Your task to perform on an android device: Search for seafood restaurants on Google Maps Image 0: 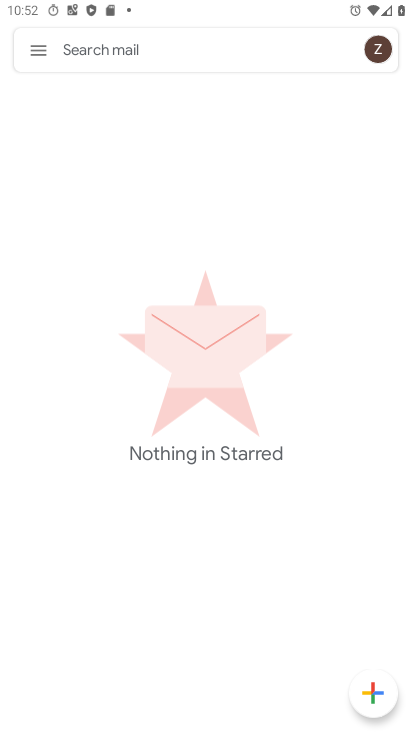
Step 0: press home button
Your task to perform on an android device: Search for seafood restaurants on Google Maps Image 1: 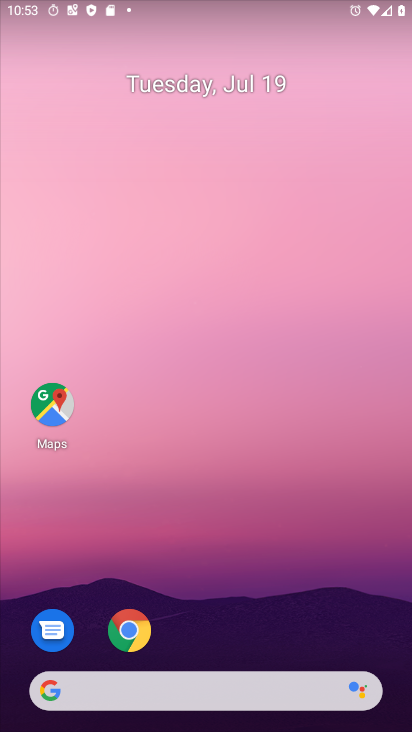
Step 1: click (45, 405)
Your task to perform on an android device: Search for seafood restaurants on Google Maps Image 2: 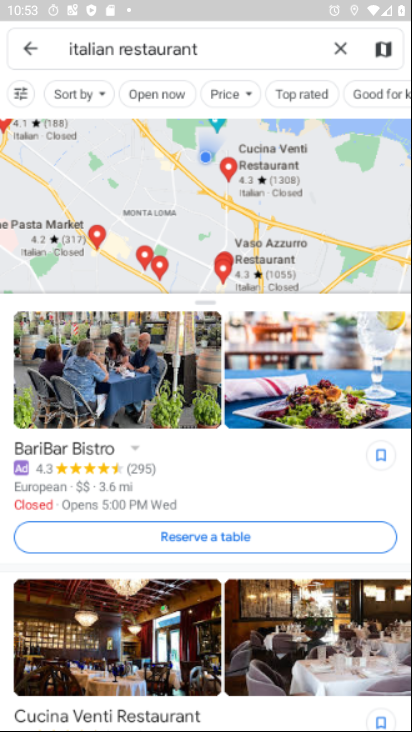
Step 2: click (344, 43)
Your task to perform on an android device: Search for seafood restaurants on Google Maps Image 3: 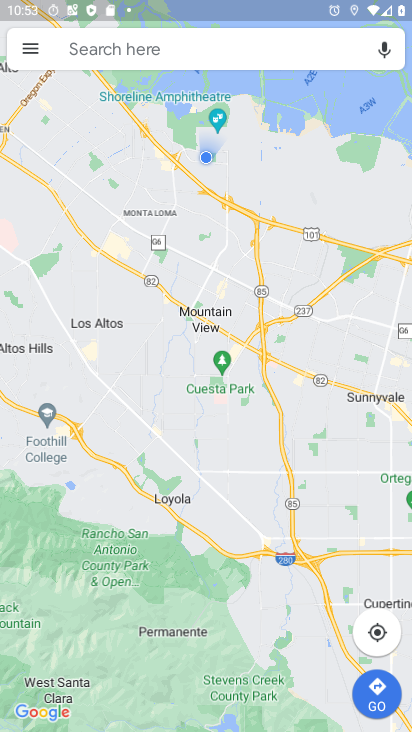
Step 3: type "seafood restaurants"
Your task to perform on an android device: Search for seafood restaurants on Google Maps Image 4: 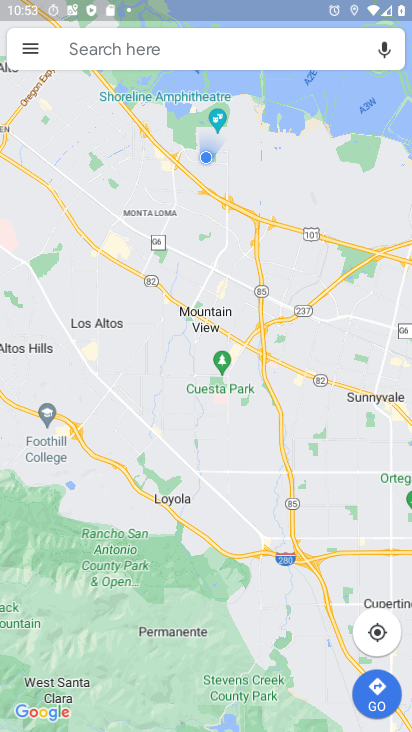
Step 4: click (125, 50)
Your task to perform on an android device: Search for seafood restaurants on Google Maps Image 5: 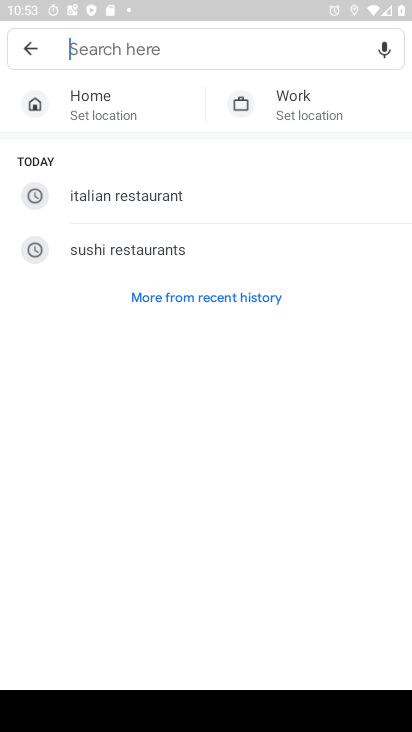
Step 5: type "seafood restaurants"
Your task to perform on an android device: Search for seafood restaurants on Google Maps Image 6: 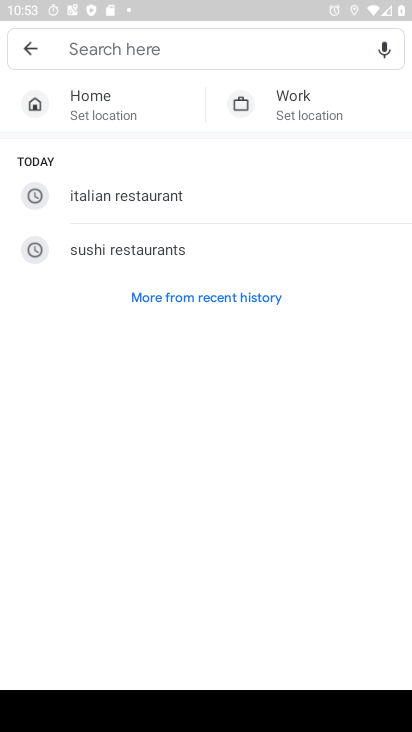
Step 6: click (89, 47)
Your task to perform on an android device: Search for seafood restaurants on Google Maps Image 7: 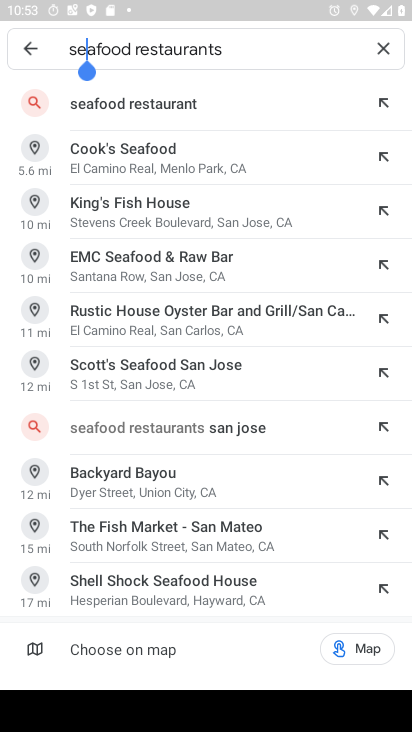
Step 7: press enter
Your task to perform on an android device: Search for seafood restaurants on Google Maps Image 8: 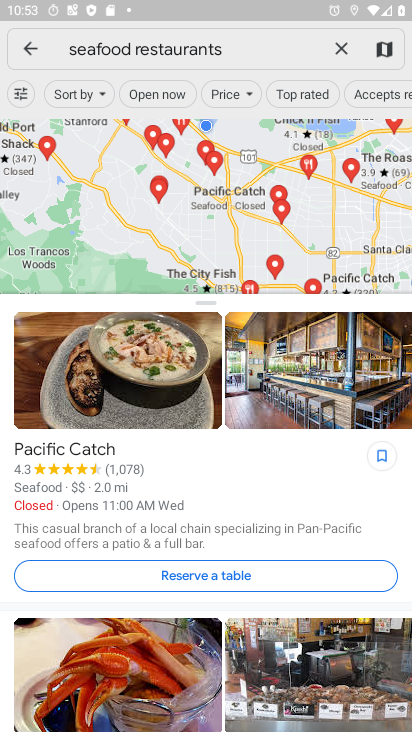
Step 8: task complete